Your task to perform on an android device: find which apps use the phone's location Image 0: 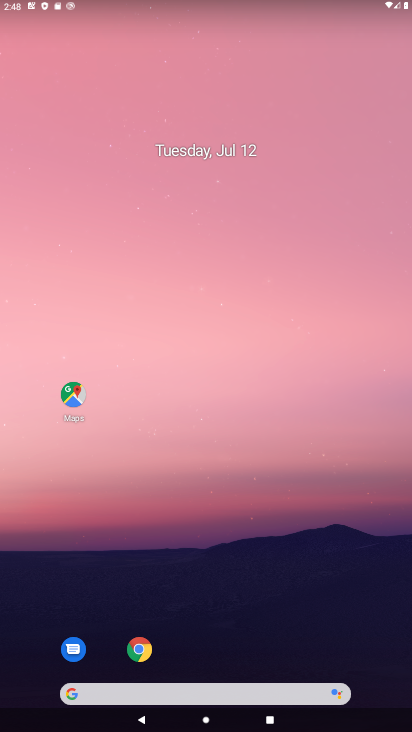
Step 0: drag from (285, 579) to (262, 103)
Your task to perform on an android device: find which apps use the phone's location Image 1: 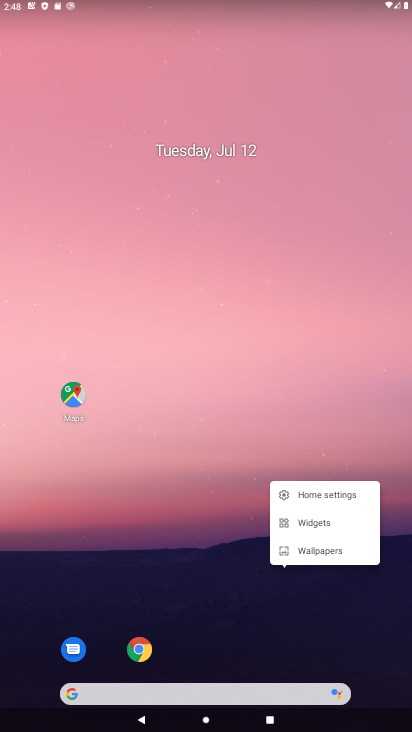
Step 1: click (177, 468)
Your task to perform on an android device: find which apps use the phone's location Image 2: 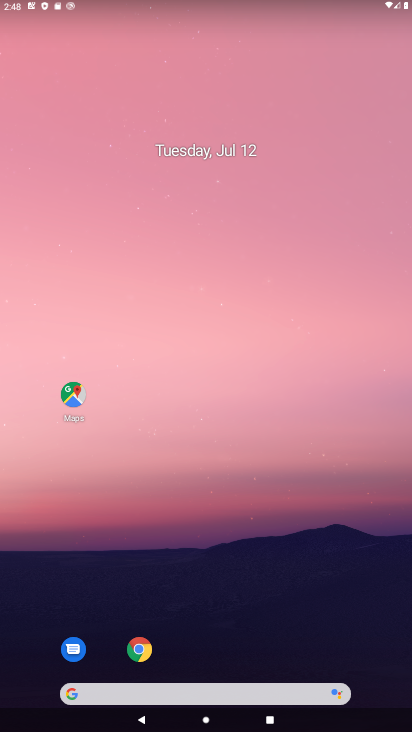
Step 2: drag from (226, 588) to (173, 124)
Your task to perform on an android device: find which apps use the phone's location Image 3: 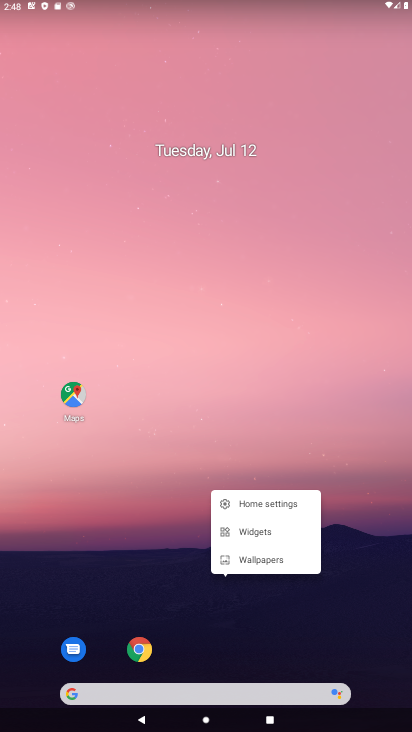
Step 3: click (188, 478)
Your task to perform on an android device: find which apps use the phone's location Image 4: 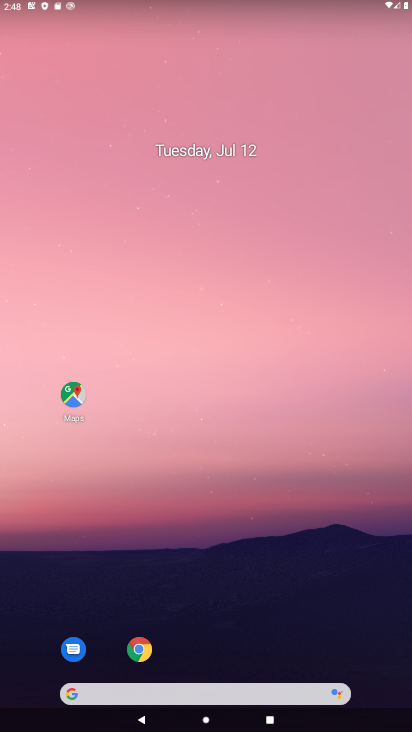
Step 4: drag from (195, 611) to (167, 81)
Your task to perform on an android device: find which apps use the phone's location Image 5: 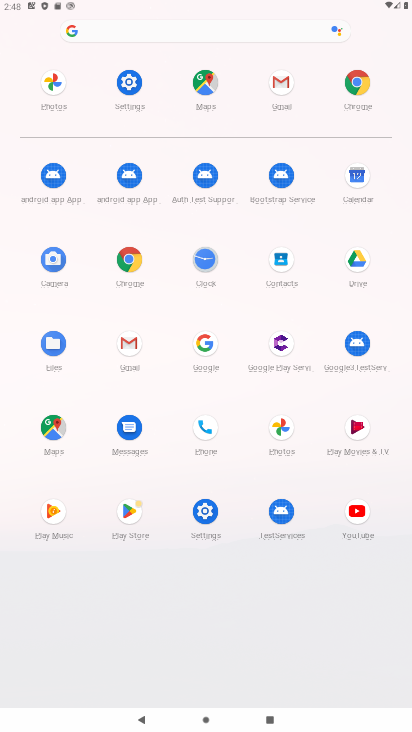
Step 5: click (139, 103)
Your task to perform on an android device: find which apps use the phone's location Image 6: 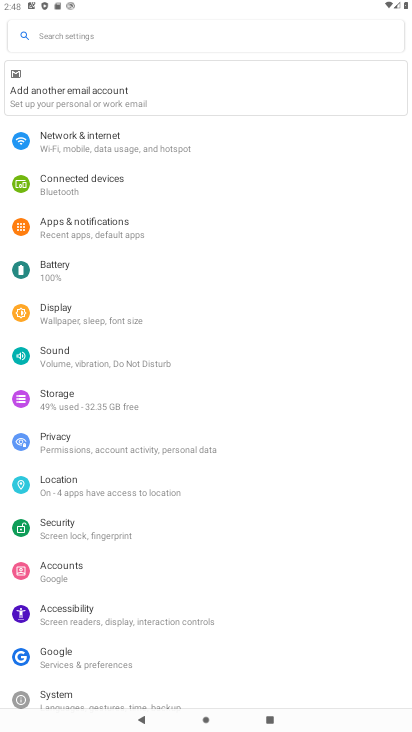
Step 6: click (86, 479)
Your task to perform on an android device: find which apps use the phone's location Image 7: 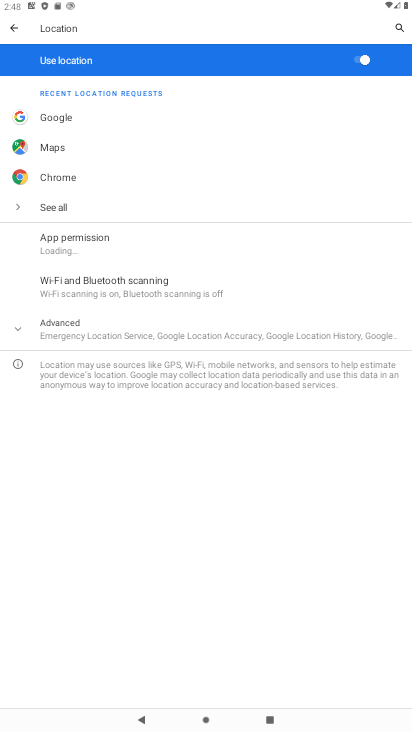
Step 7: click (75, 346)
Your task to perform on an android device: find which apps use the phone's location Image 8: 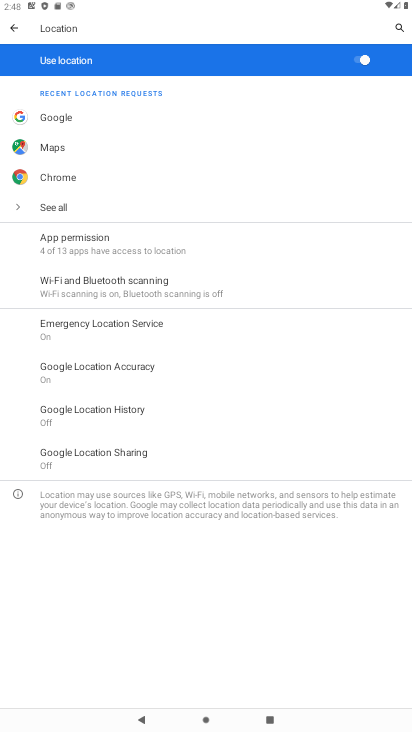
Step 8: task complete